Your task to perform on an android device: What's on my calendar today? Image 0: 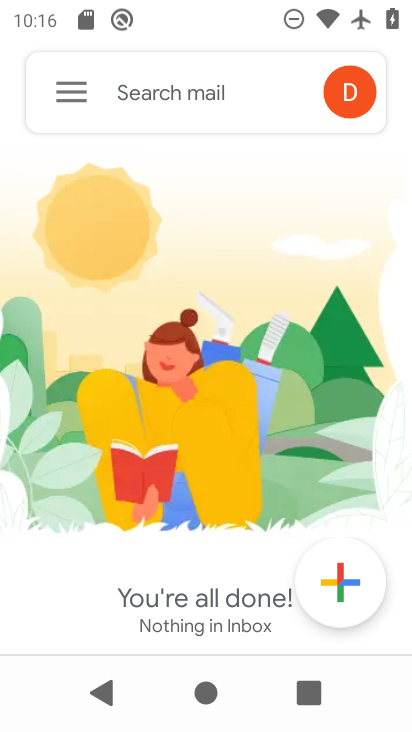
Step 0: press home button
Your task to perform on an android device: What's on my calendar today? Image 1: 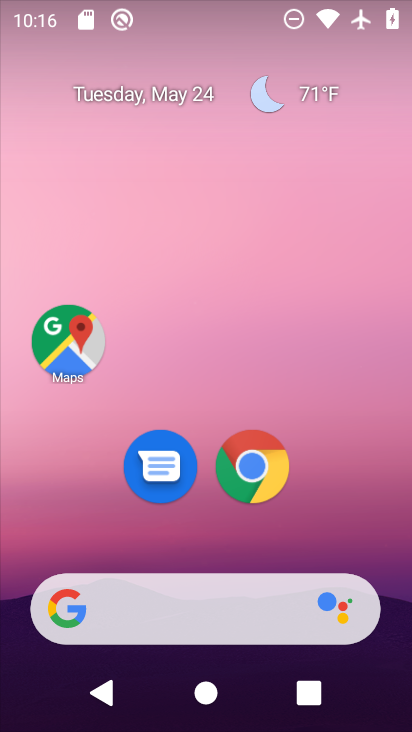
Step 1: drag from (181, 585) to (252, 3)
Your task to perform on an android device: What's on my calendar today? Image 2: 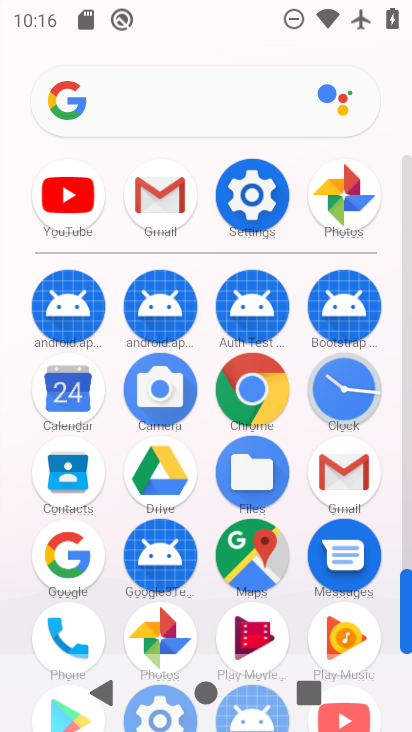
Step 2: click (66, 393)
Your task to perform on an android device: What's on my calendar today? Image 3: 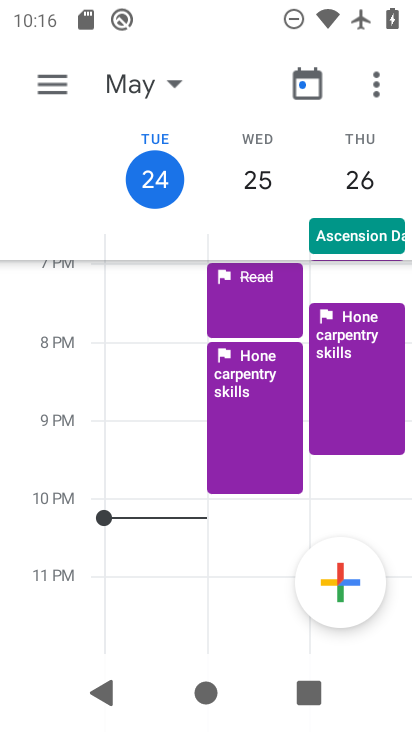
Step 3: drag from (155, 320) to (119, 731)
Your task to perform on an android device: What's on my calendar today? Image 4: 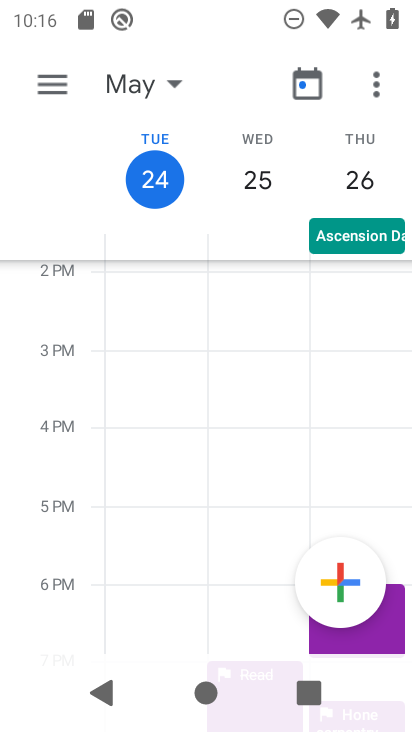
Step 4: click (48, 86)
Your task to perform on an android device: What's on my calendar today? Image 5: 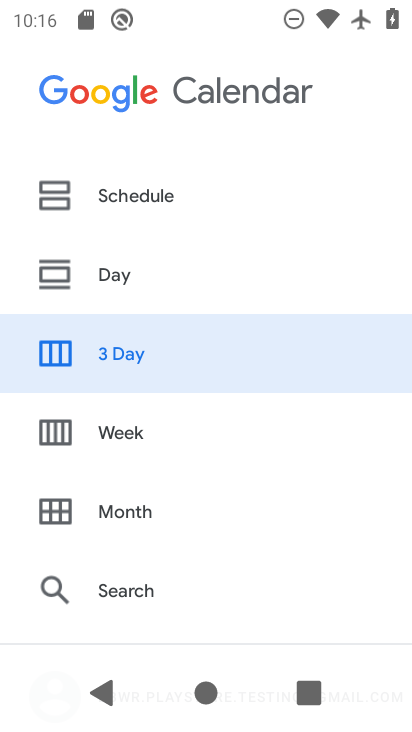
Step 5: click (114, 277)
Your task to perform on an android device: What's on my calendar today? Image 6: 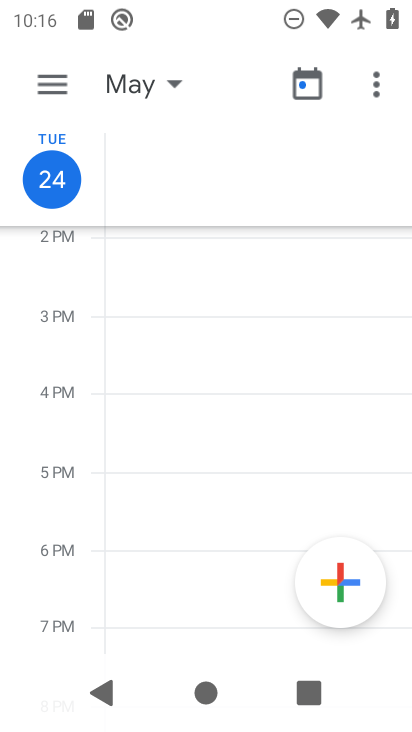
Step 6: task complete